Your task to perform on an android device: Open eBay Image 0: 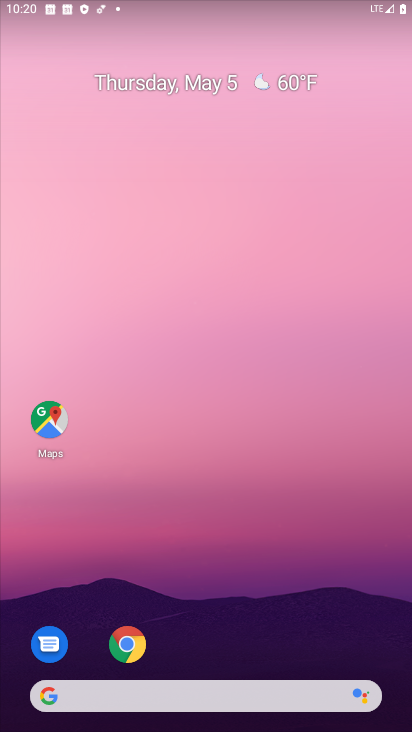
Step 0: click (269, 222)
Your task to perform on an android device: Open eBay Image 1: 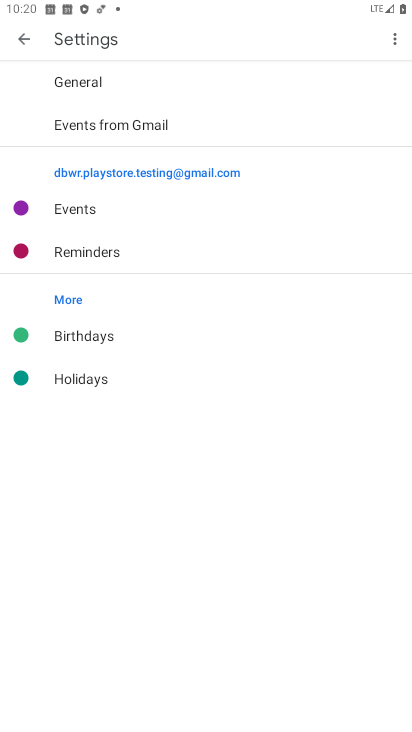
Step 1: press home button
Your task to perform on an android device: Open eBay Image 2: 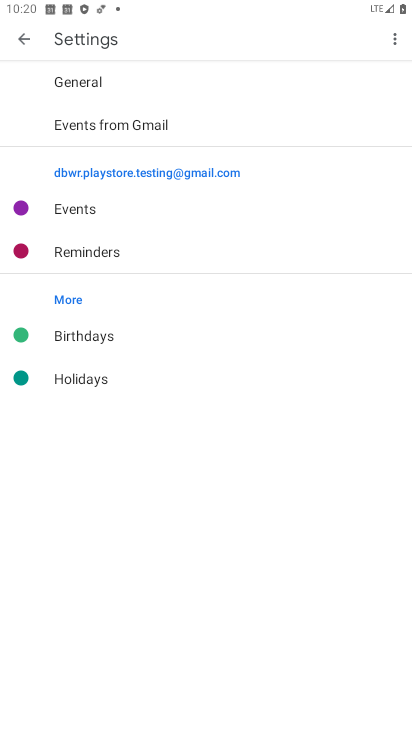
Step 2: press home button
Your task to perform on an android device: Open eBay Image 3: 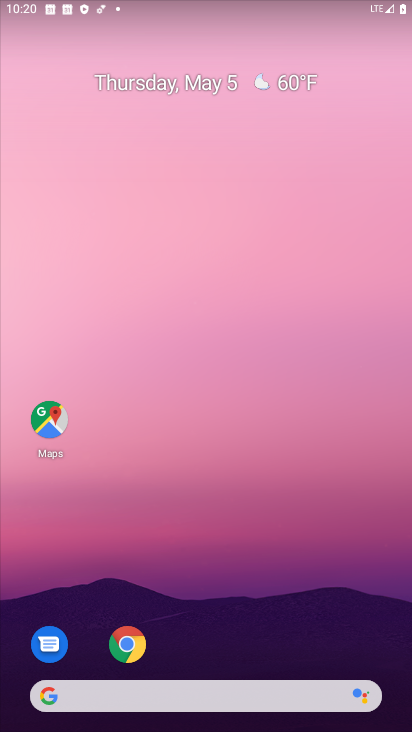
Step 3: click (180, 695)
Your task to perform on an android device: Open eBay Image 4: 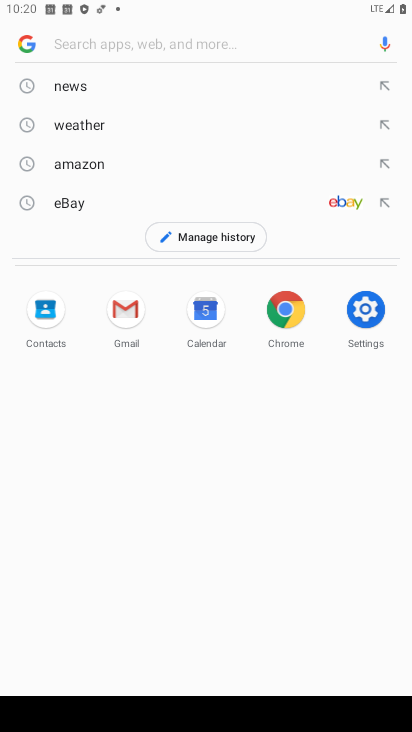
Step 4: click (64, 200)
Your task to perform on an android device: Open eBay Image 5: 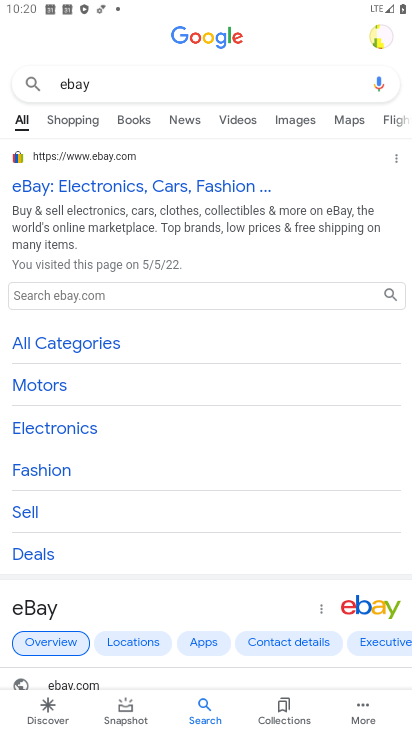
Step 5: click (76, 186)
Your task to perform on an android device: Open eBay Image 6: 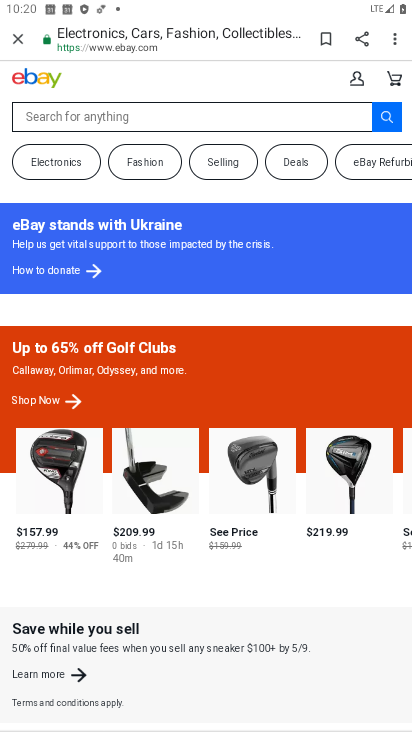
Step 6: task complete